Your task to perform on an android device: clear all cookies in the chrome app Image 0: 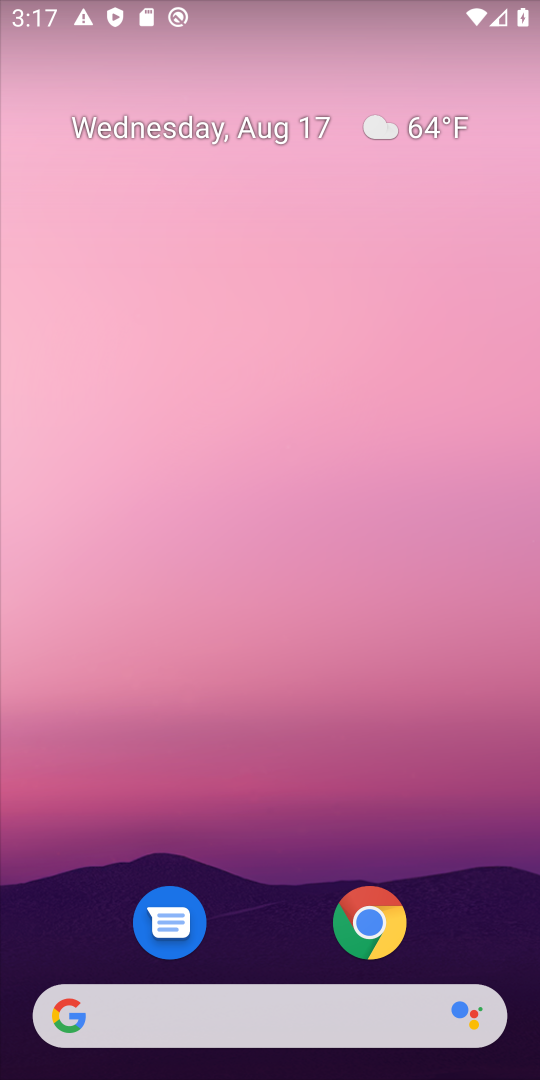
Step 0: click (363, 925)
Your task to perform on an android device: clear all cookies in the chrome app Image 1: 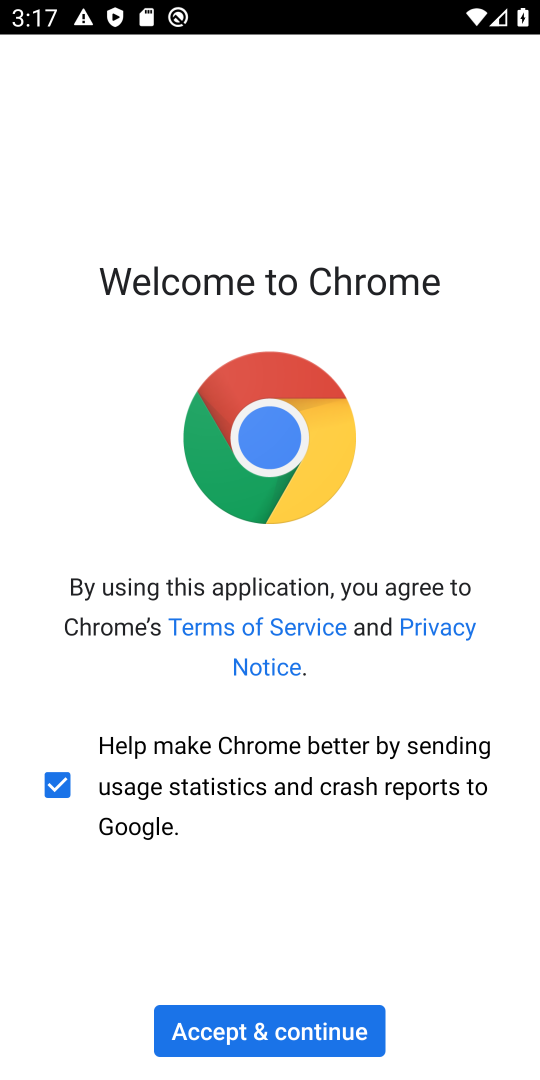
Step 1: click (200, 1039)
Your task to perform on an android device: clear all cookies in the chrome app Image 2: 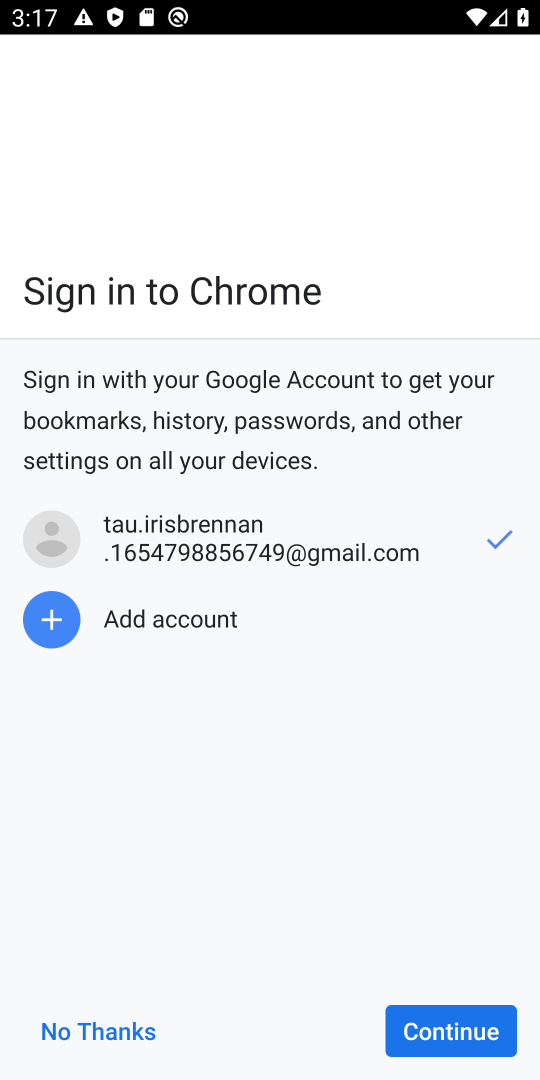
Step 2: click (444, 1021)
Your task to perform on an android device: clear all cookies in the chrome app Image 3: 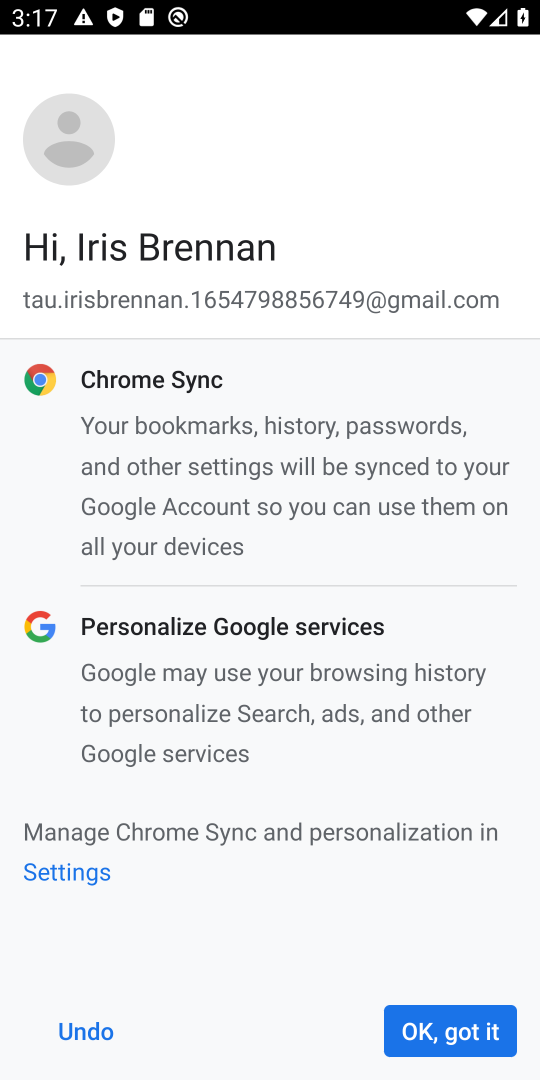
Step 3: click (444, 1021)
Your task to perform on an android device: clear all cookies in the chrome app Image 4: 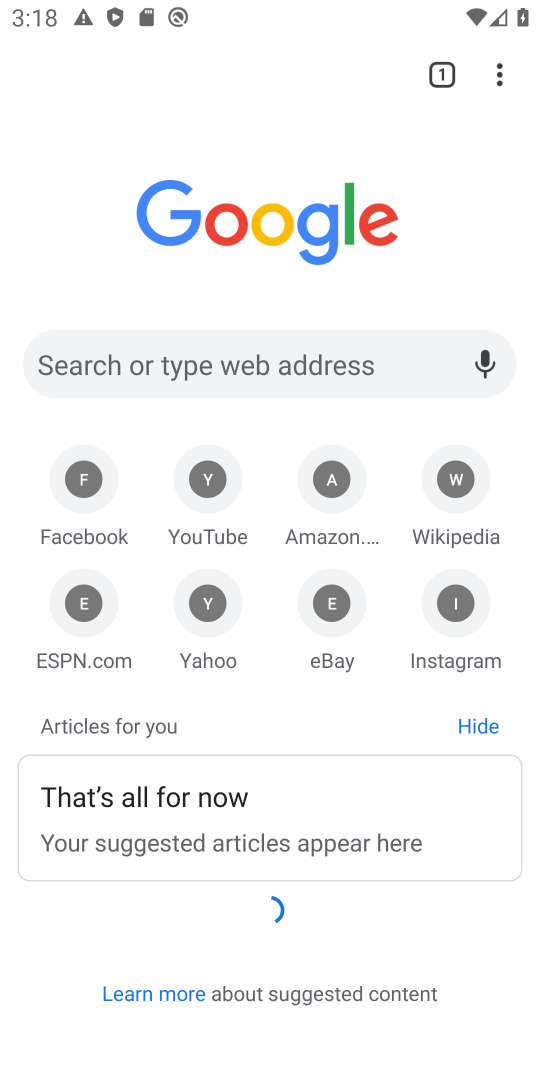
Step 4: click (514, 60)
Your task to perform on an android device: clear all cookies in the chrome app Image 5: 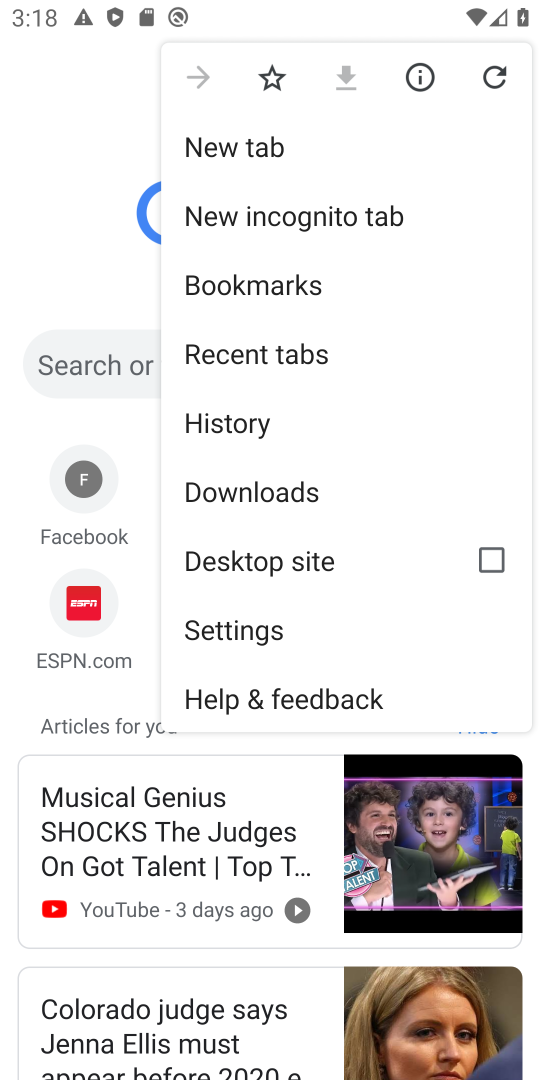
Step 5: click (319, 435)
Your task to perform on an android device: clear all cookies in the chrome app Image 6: 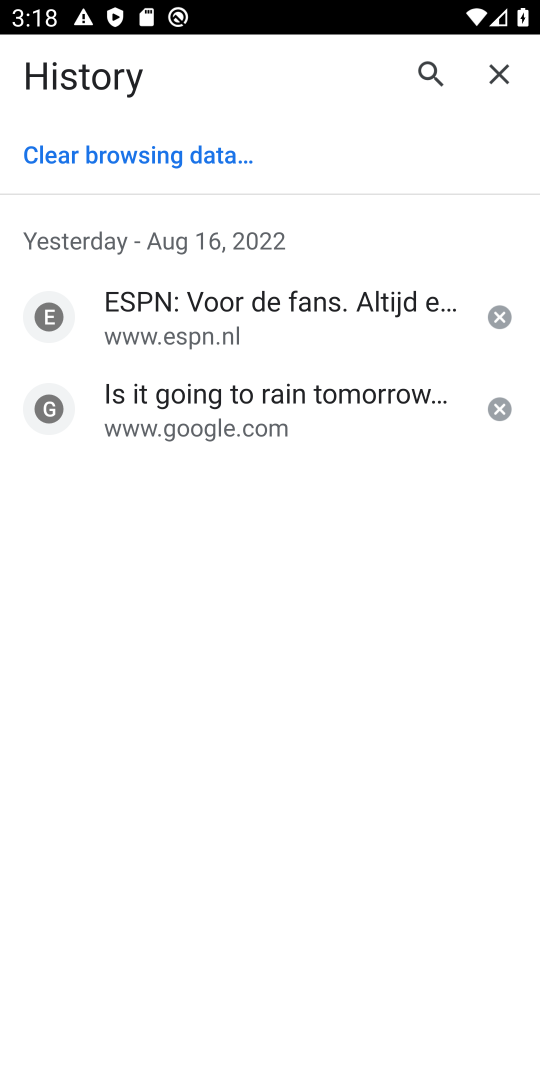
Step 6: click (221, 171)
Your task to perform on an android device: clear all cookies in the chrome app Image 7: 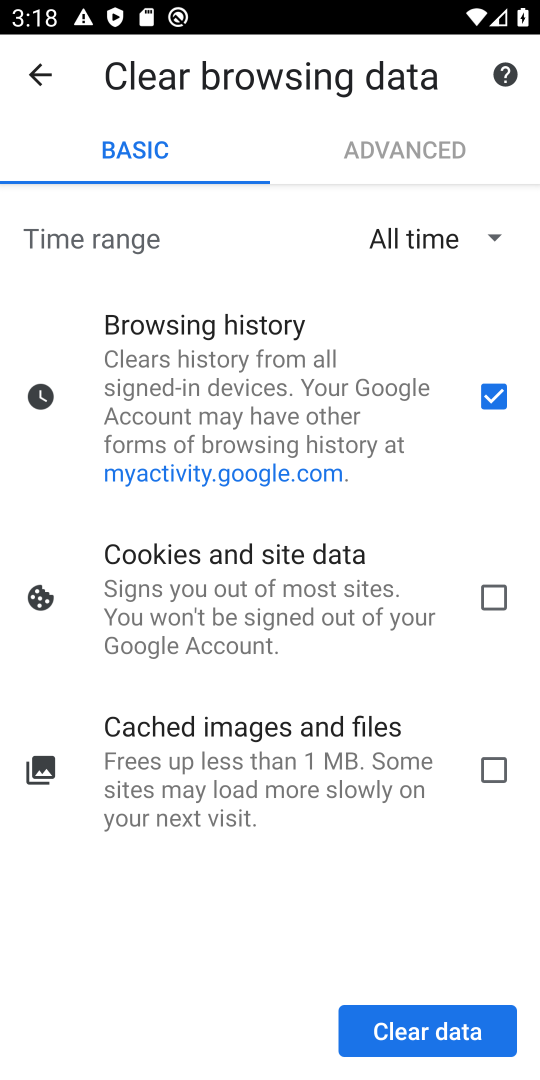
Step 7: click (484, 609)
Your task to perform on an android device: clear all cookies in the chrome app Image 8: 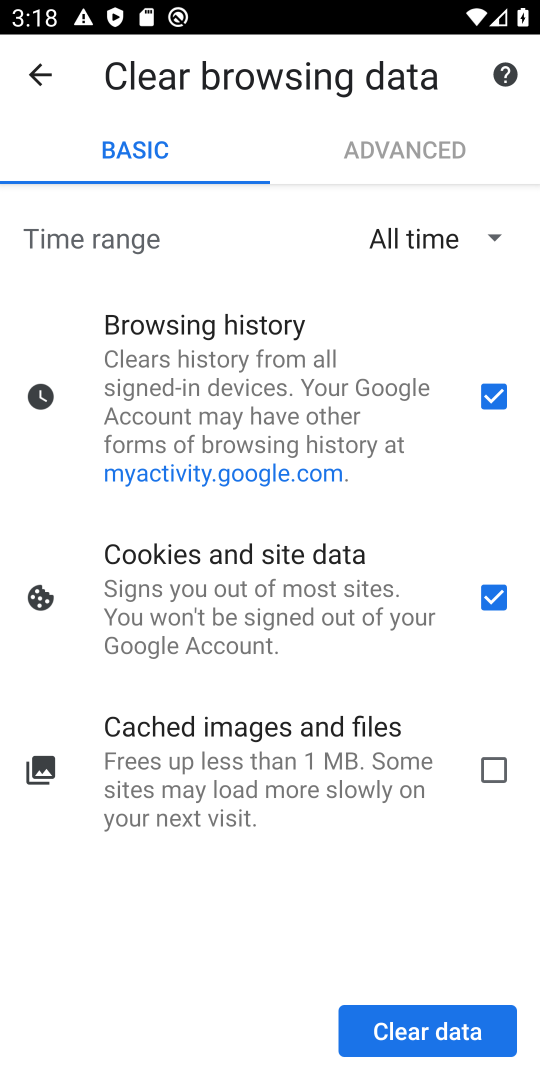
Step 8: click (490, 394)
Your task to perform on an android device: clear all cookies in the chrome app Image 9: 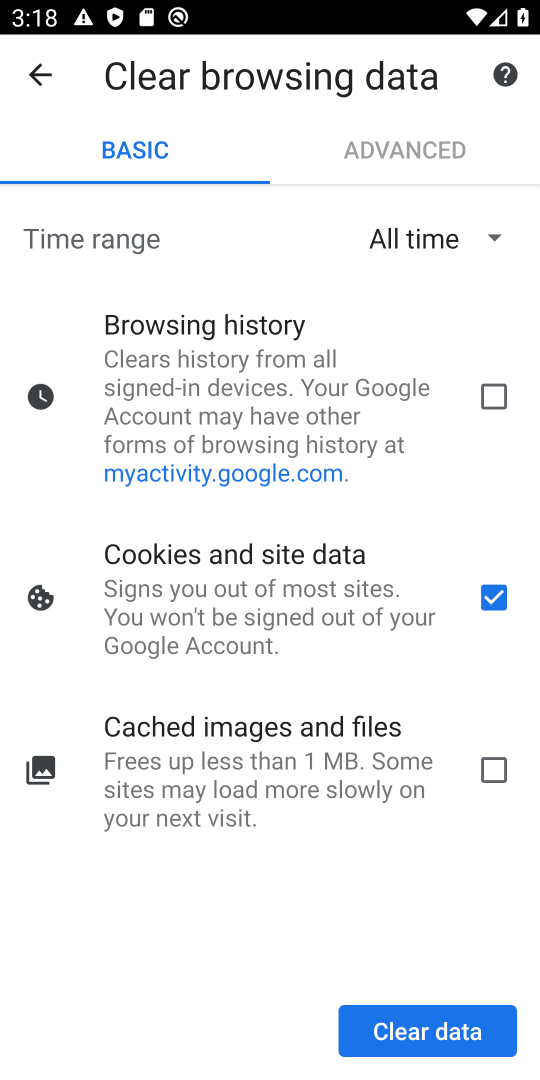
Step 9: click (351, 1048)
Your task to perform on an android device: clear all cookies in the chrome app Image 10: 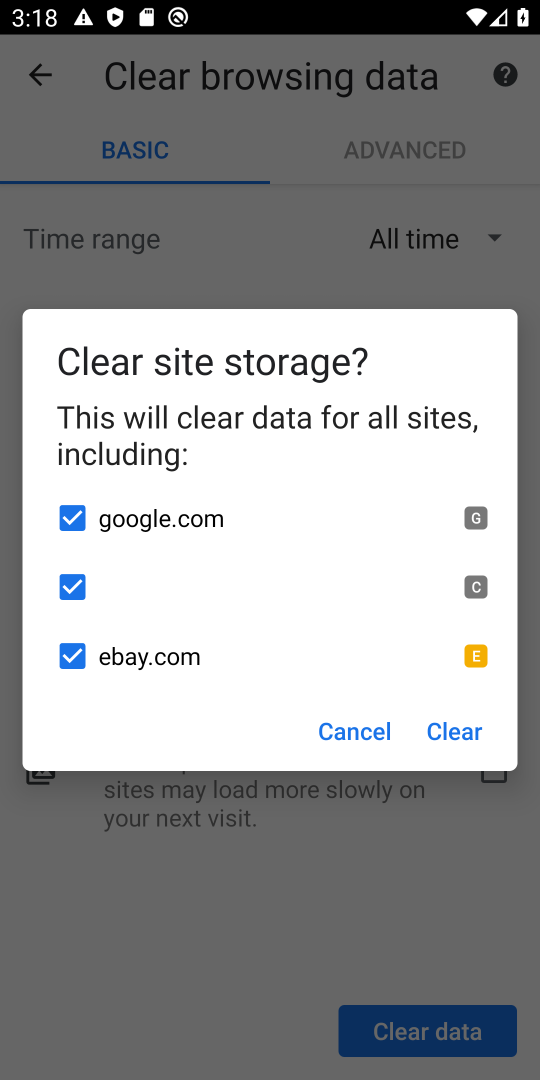
Step 10: click (460, 735)
Your task to perform on an android device: clear all cookies in the chrome app Image 11: 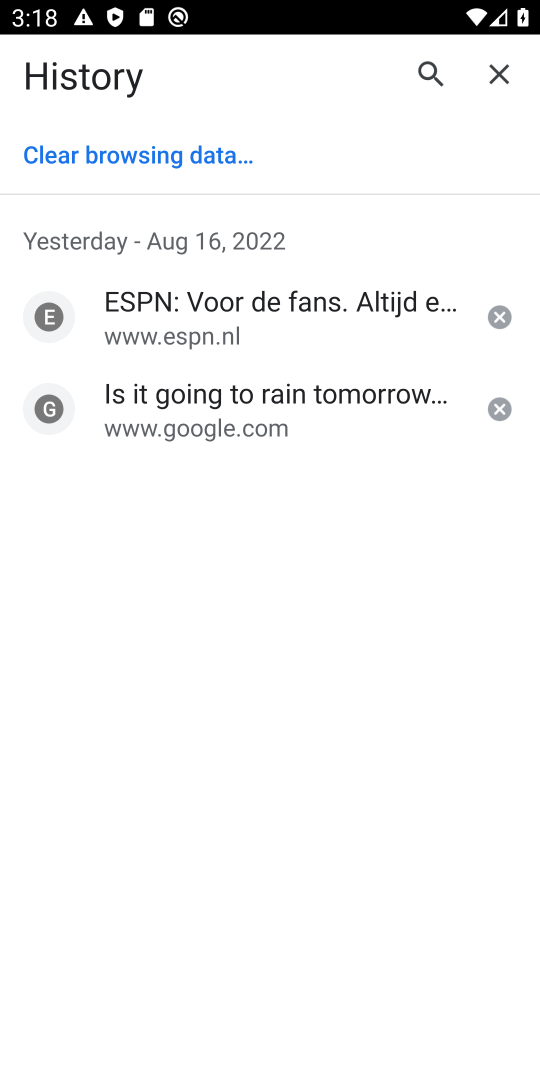
Step 11: task complete